Your task to perform on an android device: Clear all items from cart on ebay.com. Image 0: 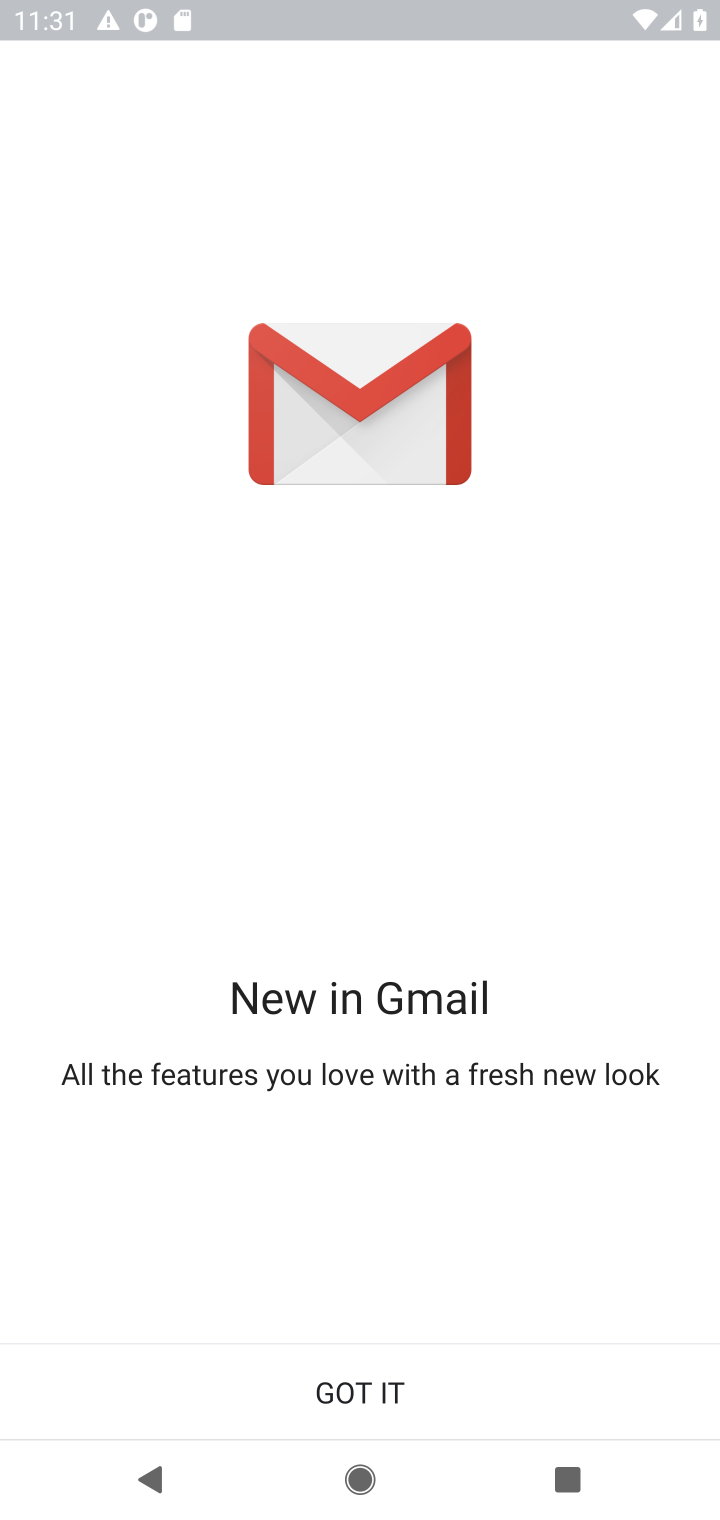
Step 0: press home button
Your task to perform on an android device: Clear all items from cart on ebay.com. Image 1: 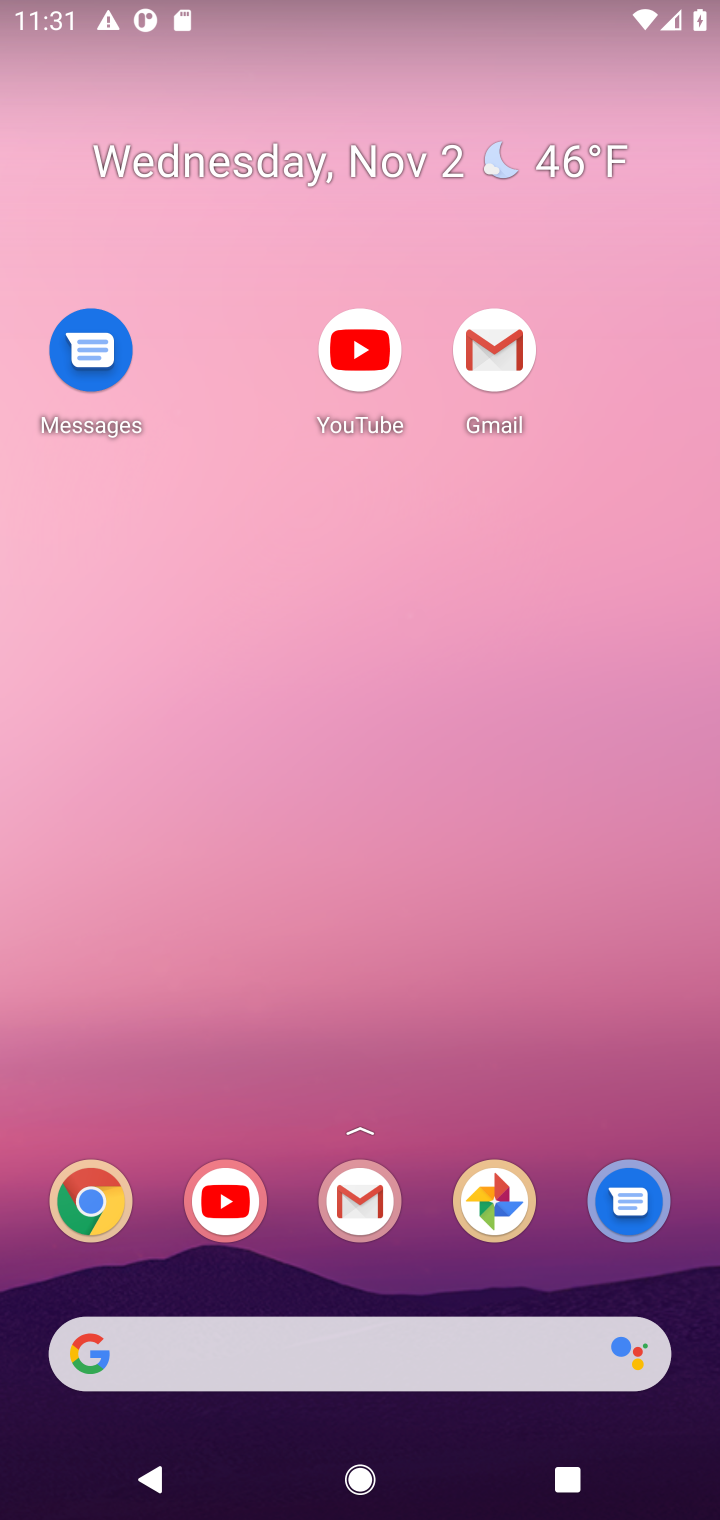
Step 1: drag from (406, 1229) to (369, 385)
Your task to perform on an android device: Clear all items from cart on ebay.com. Image 2: 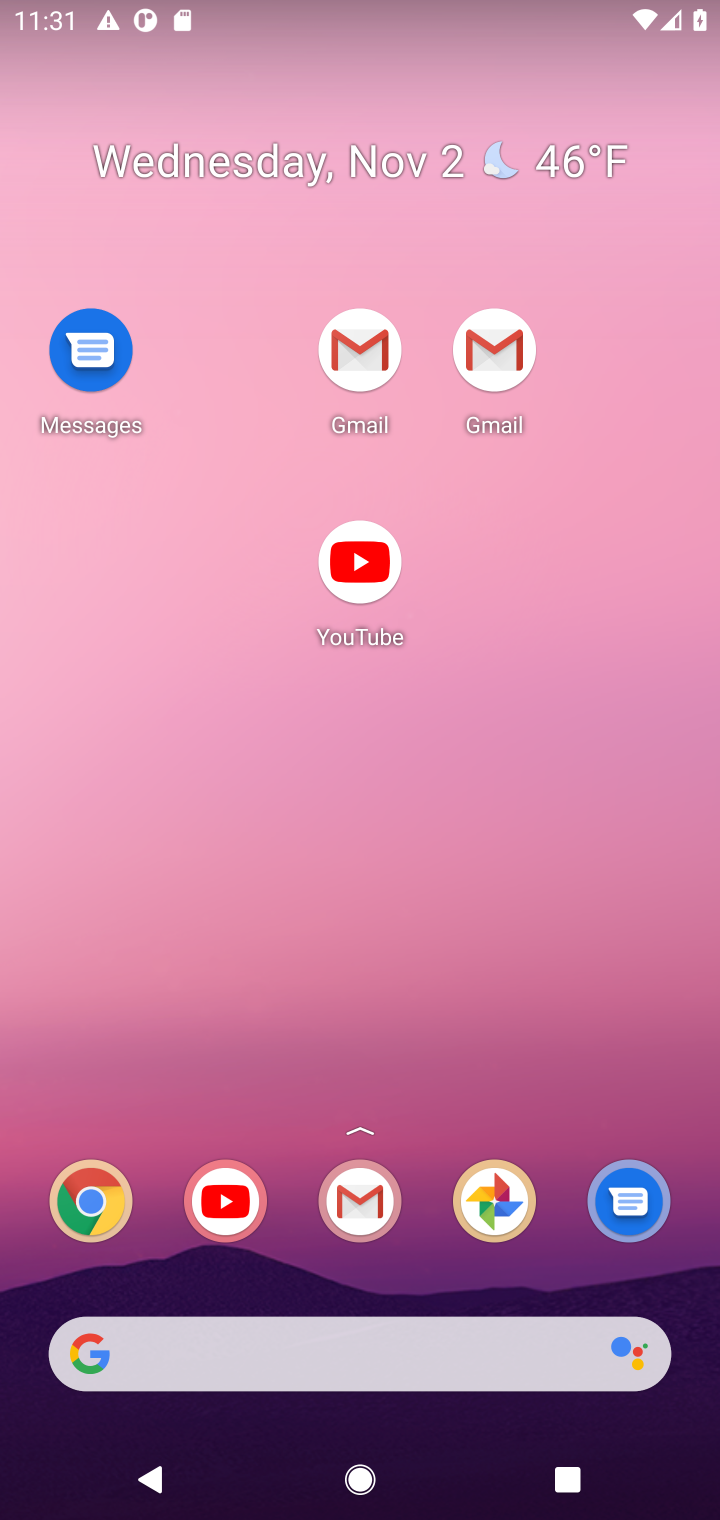
Step 2: drag from (308, 1287) to (248, 174)
Your task to perform on an android device: Clear all items from cart on ebay.com. Image 3: 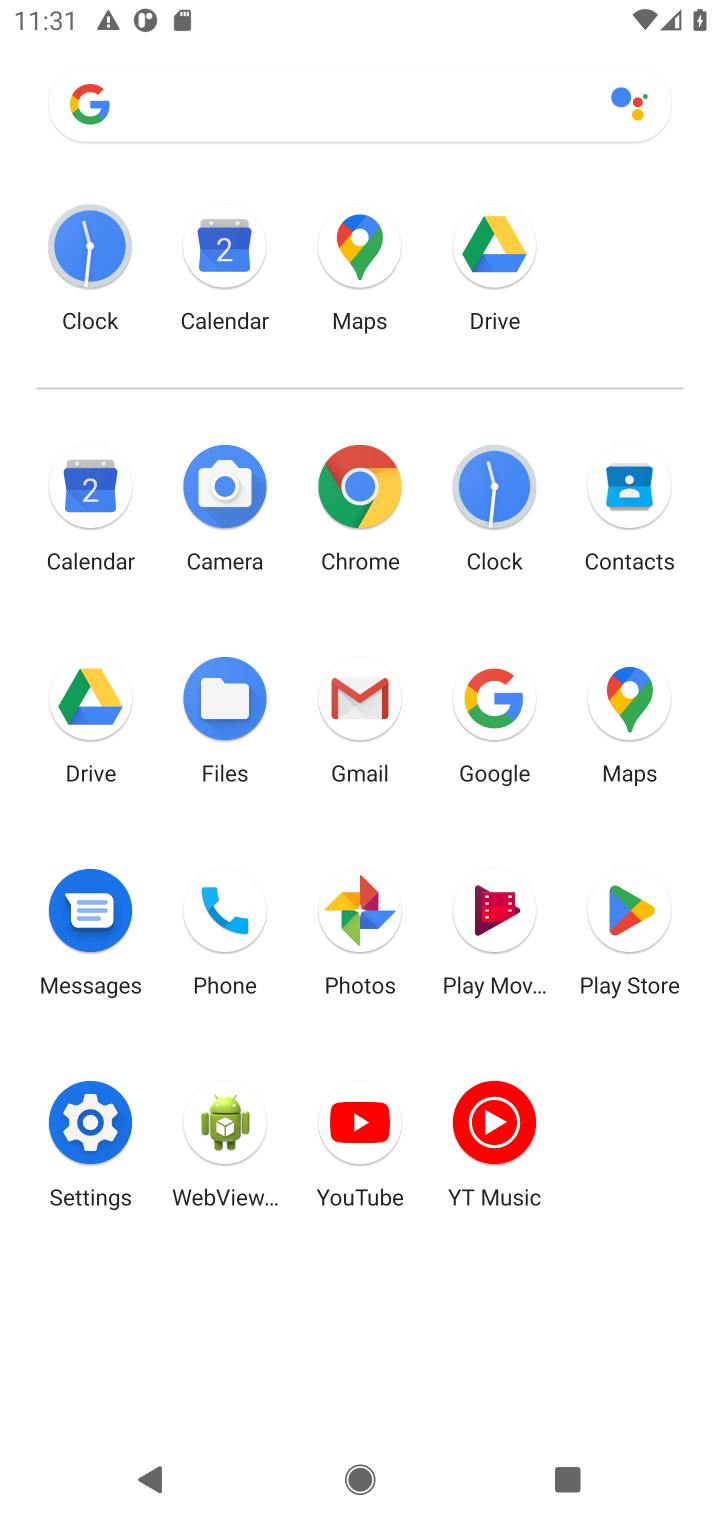
Step 3: click (372, 501)
Your task to perform on an android device: Clear all items from cart on ebay.com. Image 4: 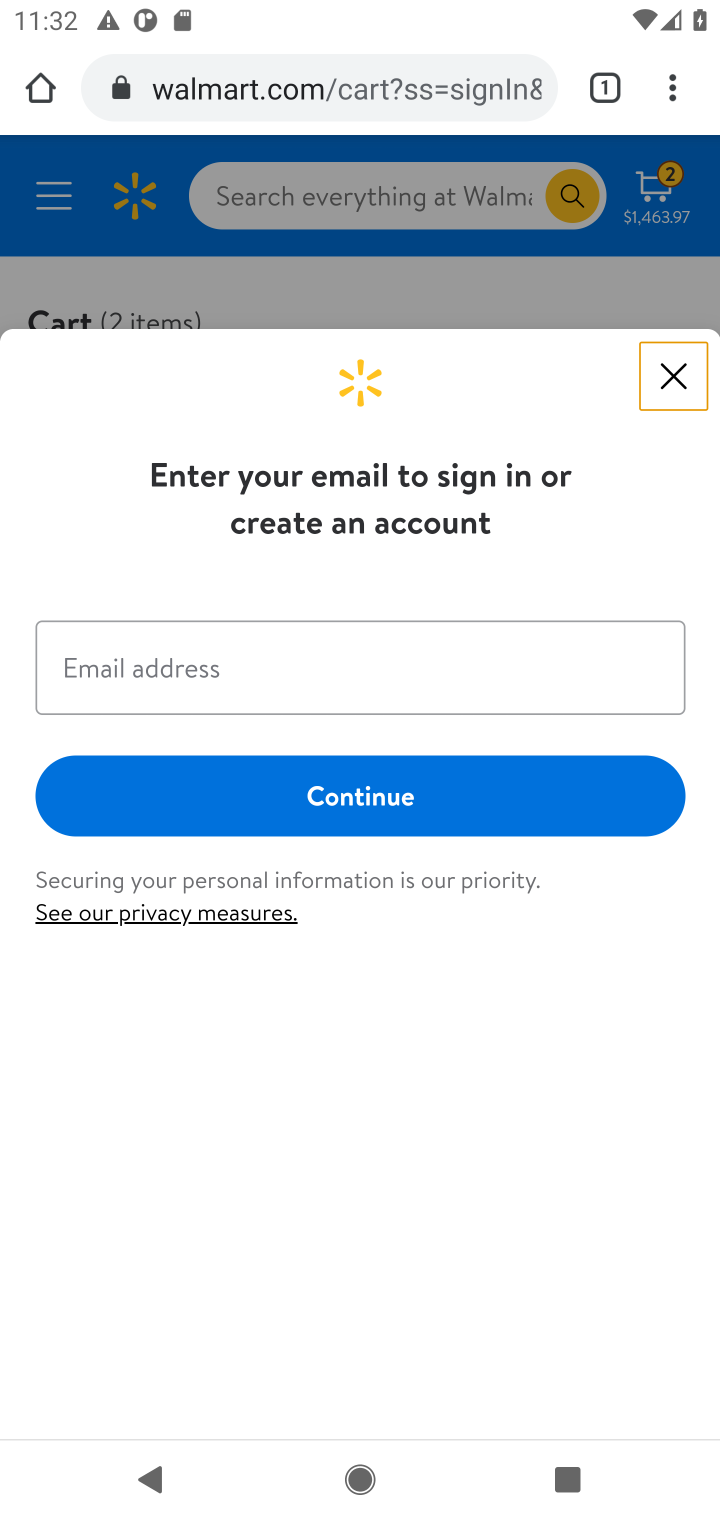
Step 4: click (302, 88)
Your task to perform on an android device: Clear all items from cart on ebay.com. Image 5: 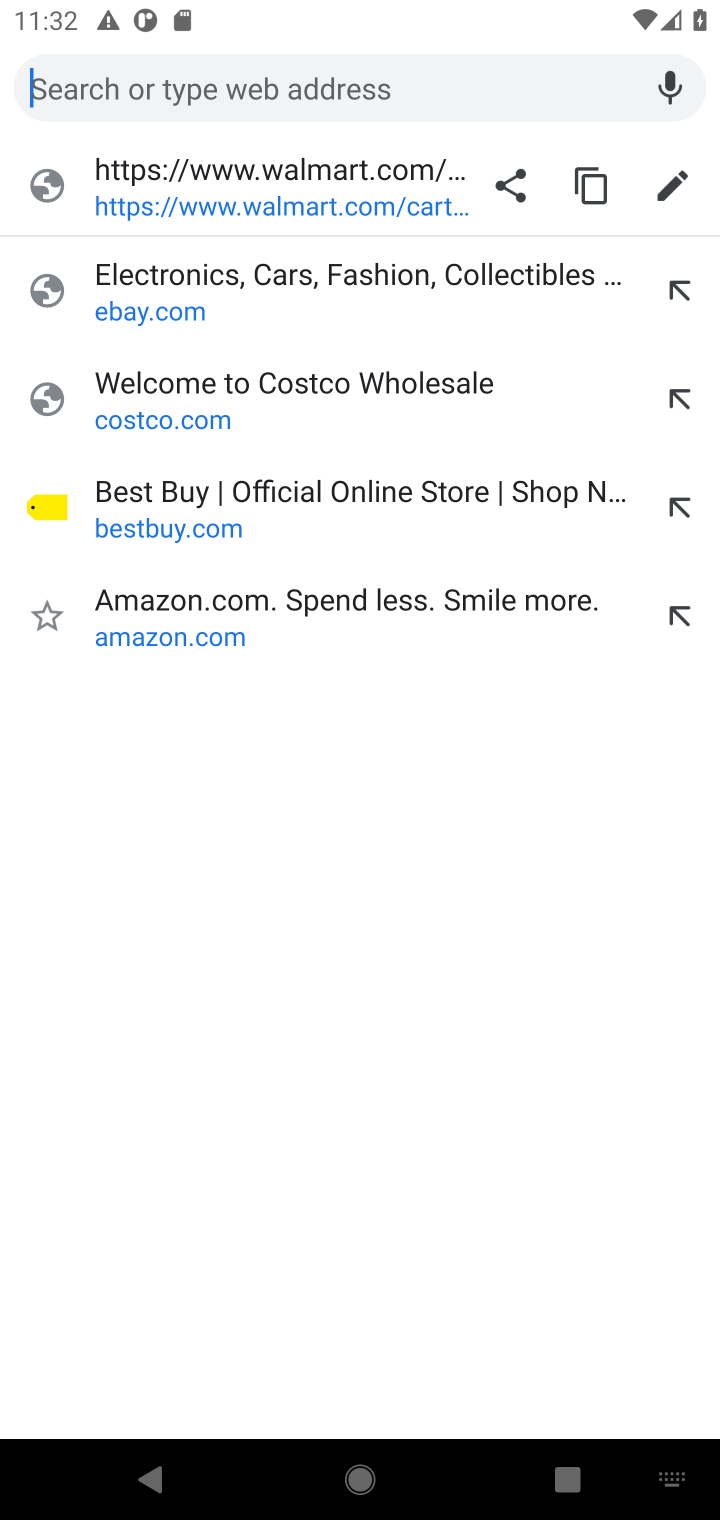
Step 5: type "ebay.com"
Your task to perform on an android device: Clear all items from cart on ebay.com. Image 6: 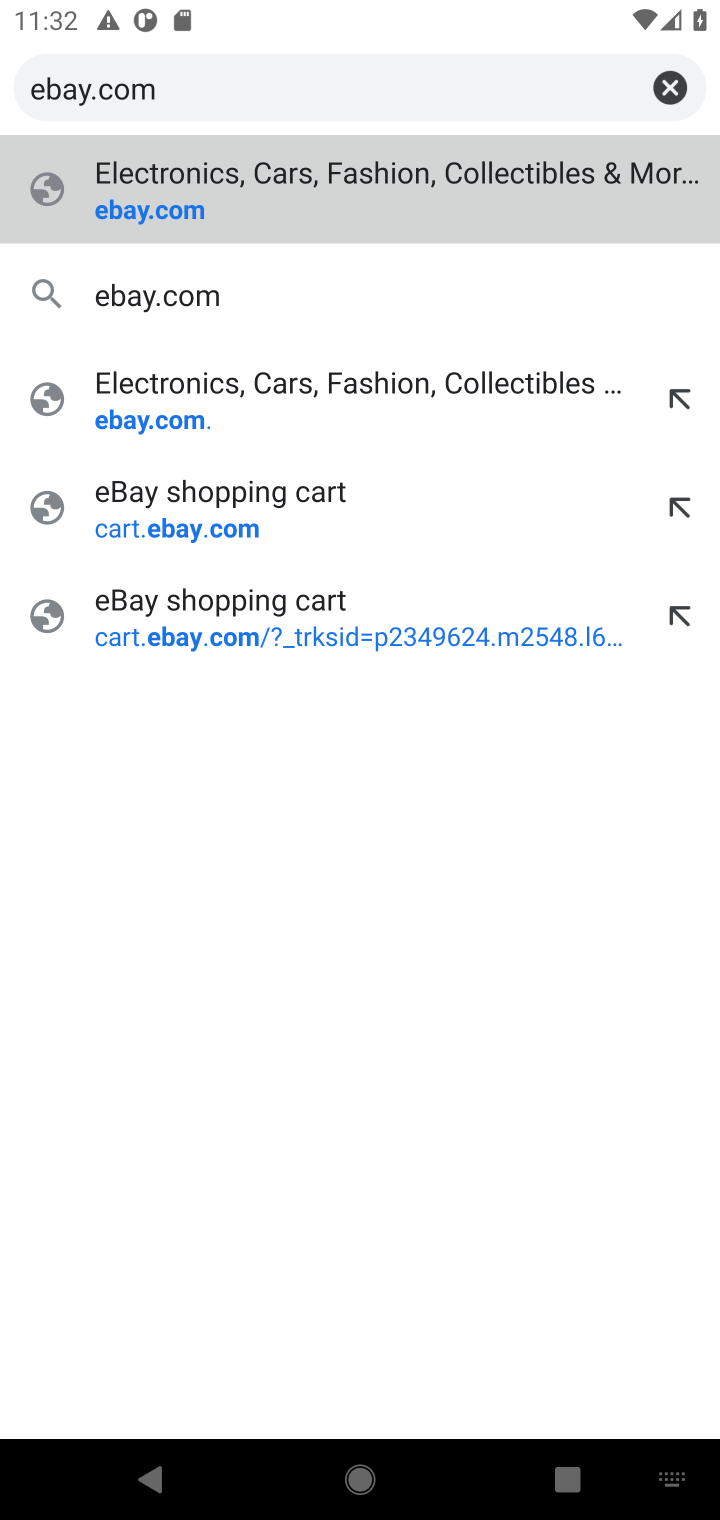
Step 6: press enter
Your task to perform on an android device: Clear all items from cart on ebay.com. Image 7: 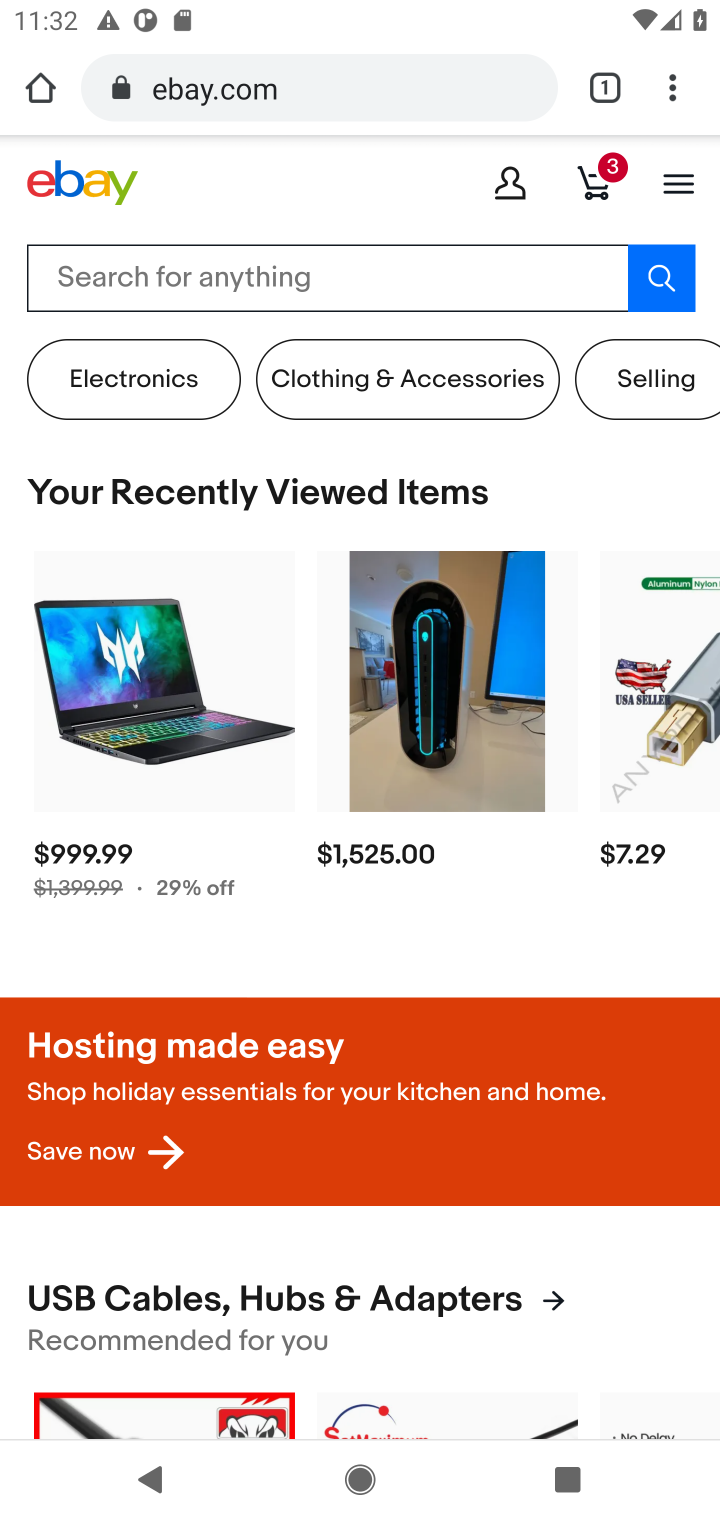
Step 7: click (612, 171)
Your task to perform on an android device: Clear all items from cart on ebay.com. Image 8: 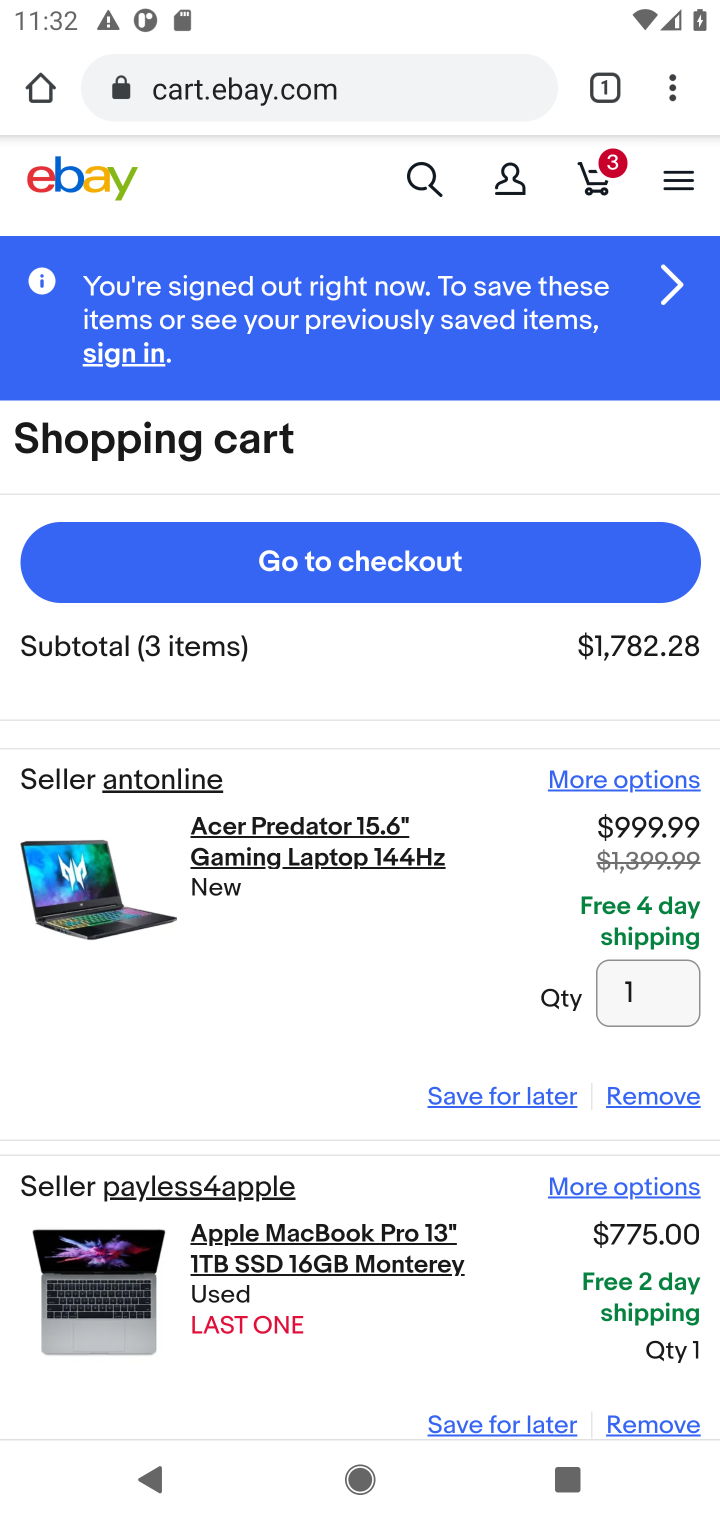
Step 8: click (660, 1086)
Your task to perform on an android device: Clear all items from cart on ebay.com. Image 9: 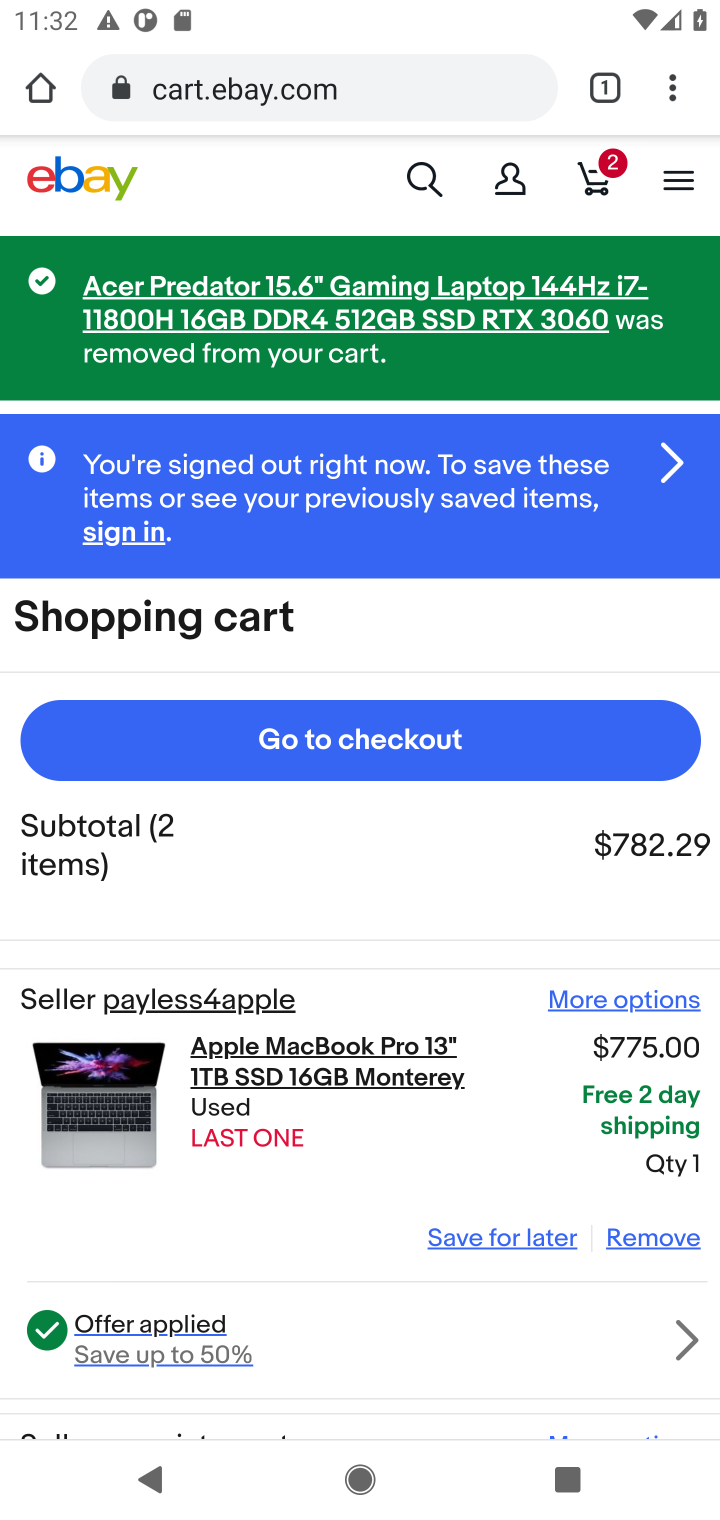
Step 9: click (660, 1242)
Your task to perform on an android device: Clear all items from cart on ebay.com. Image 10: 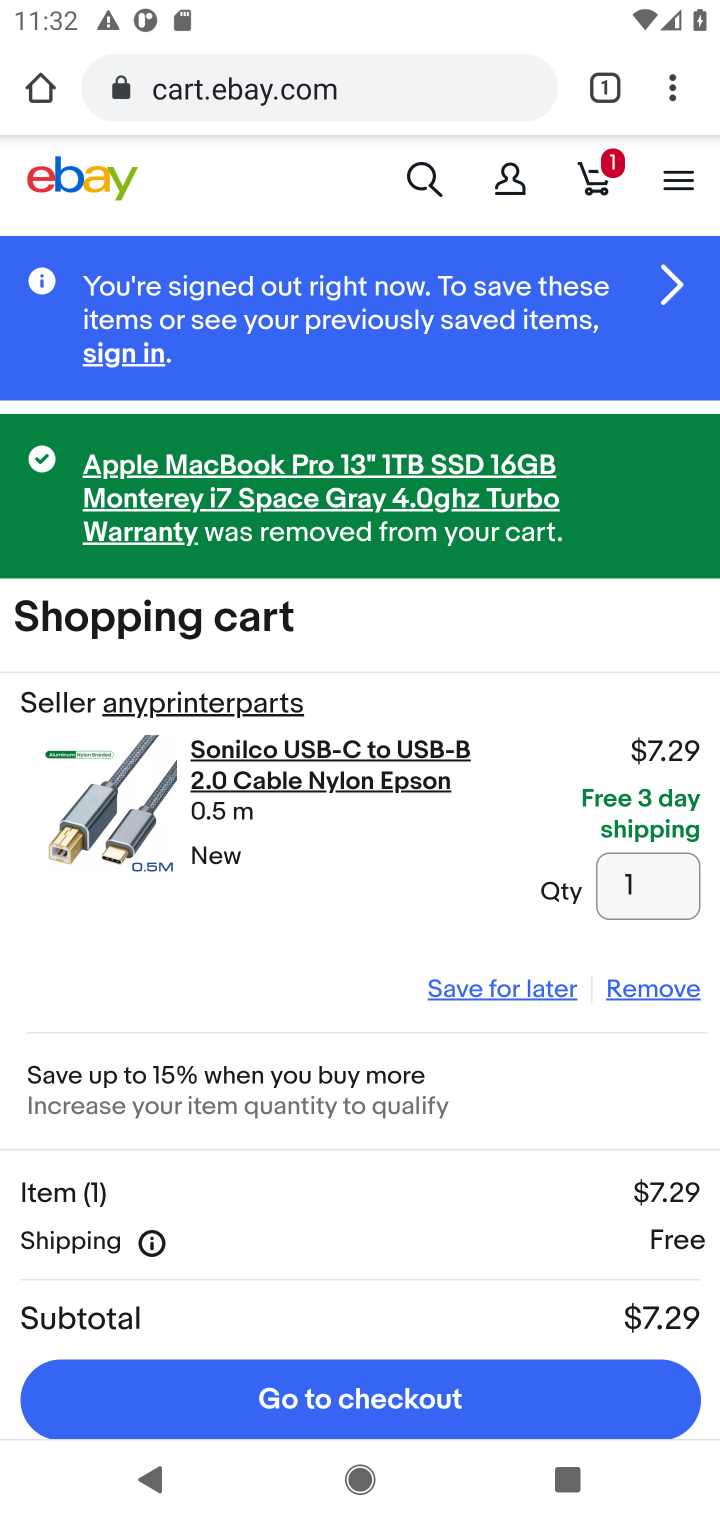
Step 10: click (668, 977)
Your task to perform on an android device: Clear all items from cart on ebay.com. Image 11: 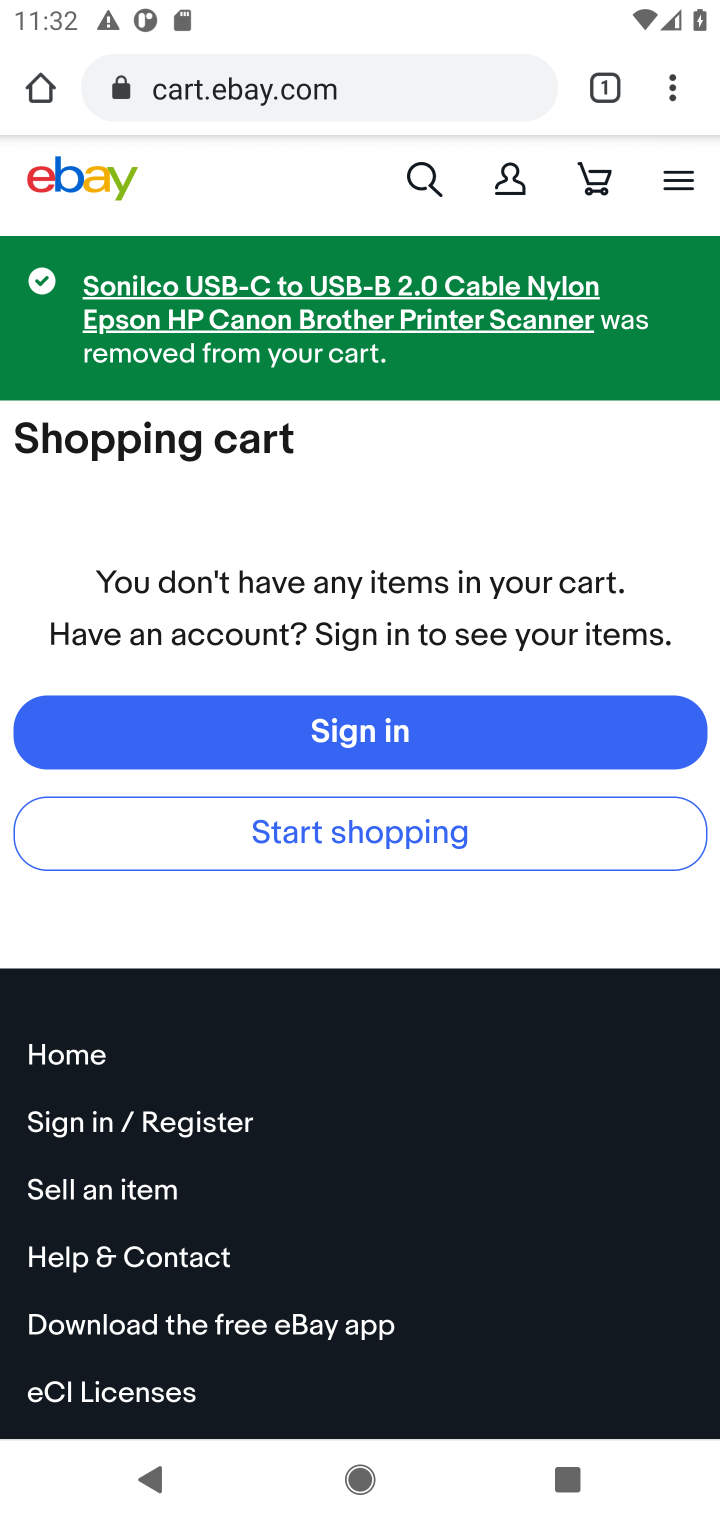
Step 11: task complete